Your task to perform on an android device: Turn on the flashlight Image 0: 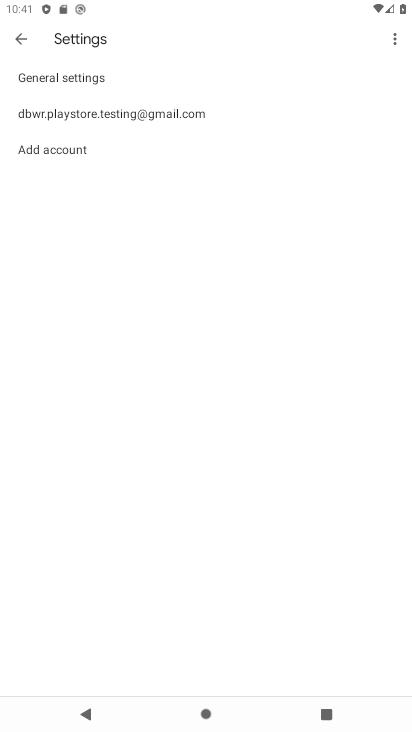
Step 0: press home button
Your task to perform on an android device: Turn on the flashlight Image 1: 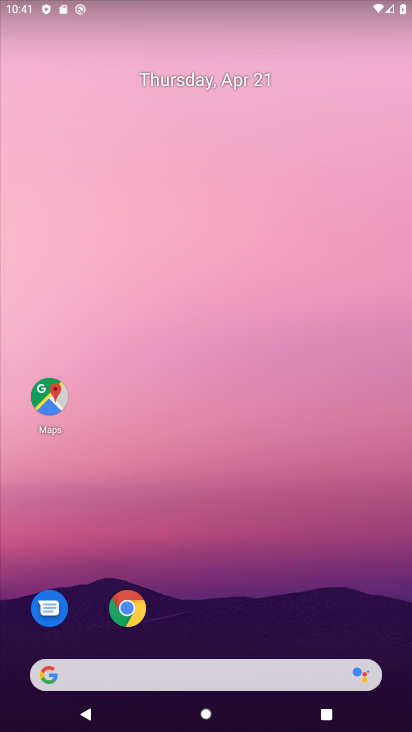
Step 1: drag from (246, 560) to (257, 11)
Your task to perform on an android device: Turn on the flashlight Image 2: 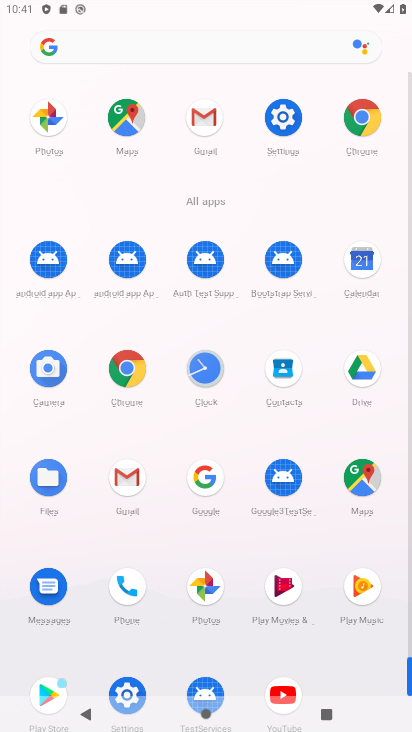
Step 2: click (285, 116)
Your task to perform on an android device: Turn on the flashlight Image 3: 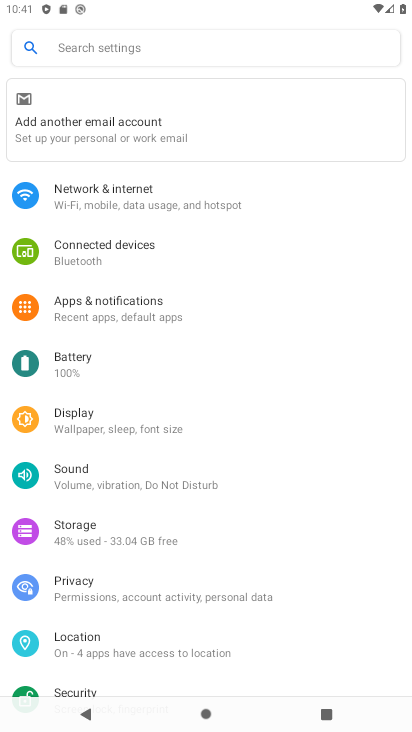
Step 3: drag from (227, 371) to (243, 280)
Your task to perform on an android device: Turn on the flashlight Image 4: 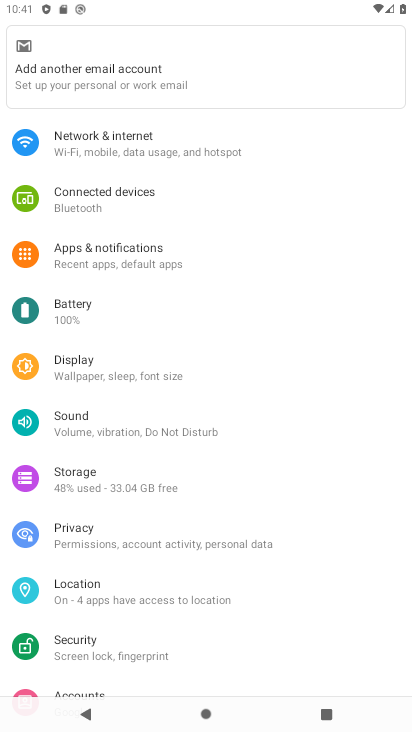
Step 4: drag from (248, 440) to (274, 352)
Your task to perform on an android device: Turn on the flashlight Image 5: 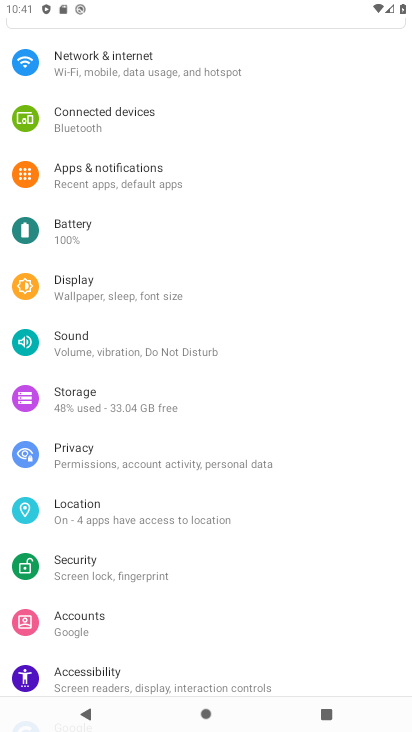
Step 5: drag from (240, 491) to (316, 337)
Your task to perform on an android device: Turn on the flashlight Image 6: 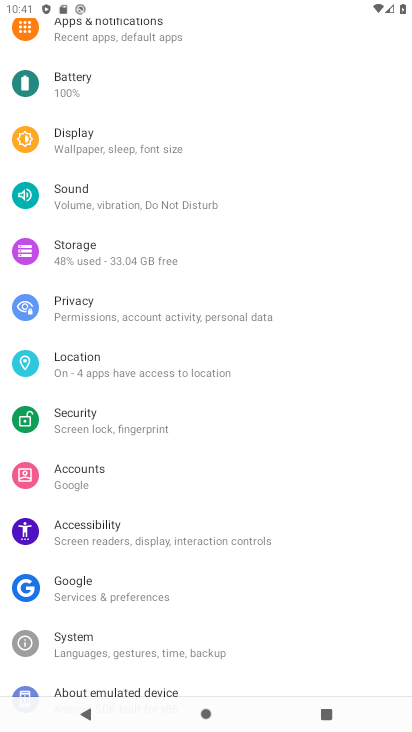
Step 6: drag from (240, 480) to (271, 367)
Your task to perform on an android device: Turn on the flashlight Image 7: 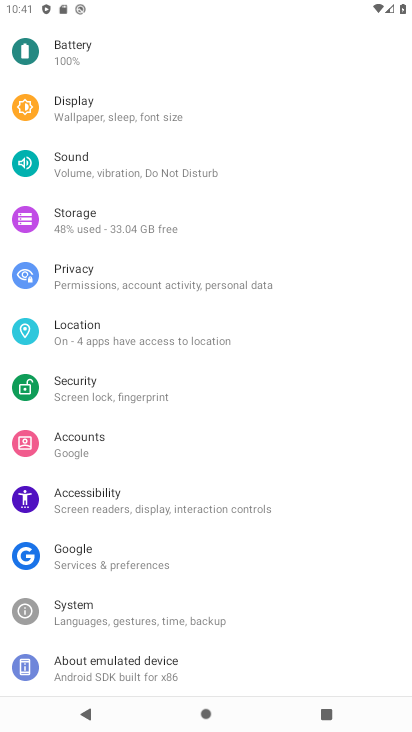
Step 7: click (119, 509)
Your task to perform on an android device: Turn on the flashlight Image 8: 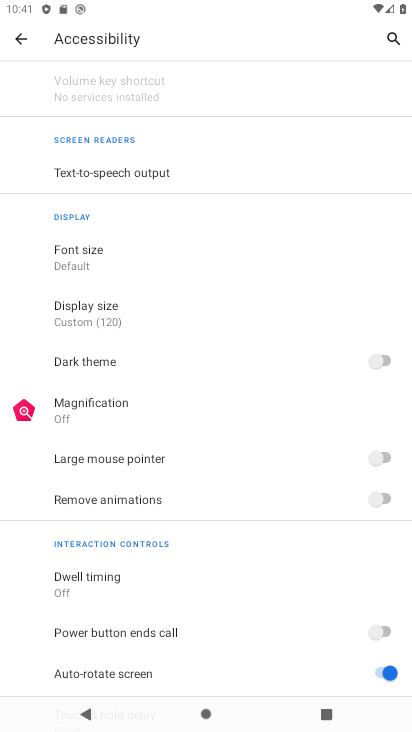
Step 8: drag from (172, 379) to (216, 313)
Your task to perform on an android device: Turn on the flashlight Image 9: 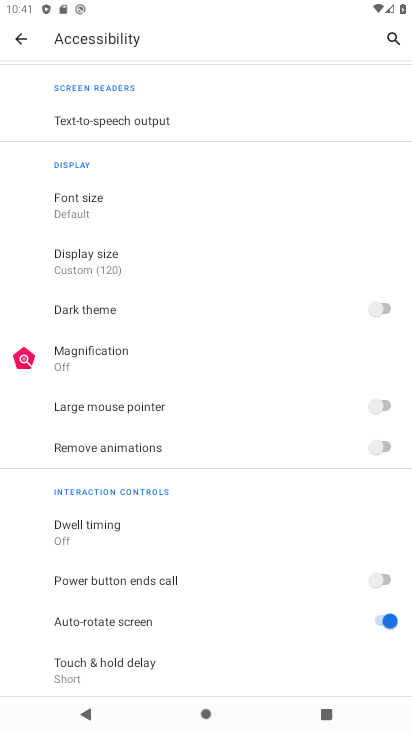
Step 9: drag from (193, 422) to (246, 355)
Your task to perform on an android device: Turn on the flashlight Image 10: 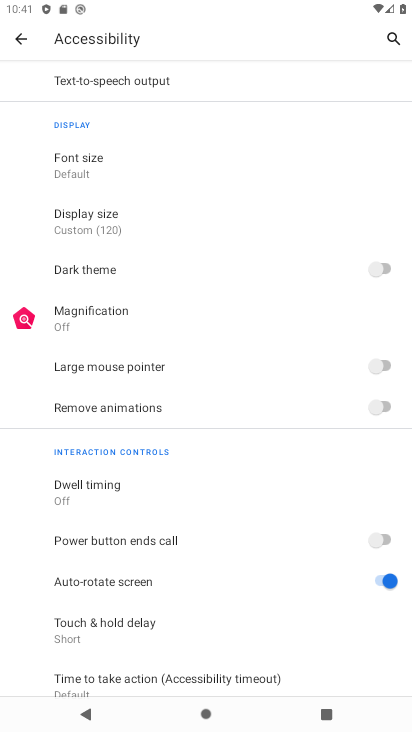
Step 10: drag from (222, 438) to (268, 334)
Your task to perform on an android device: Turn on the flashlight Image 11: 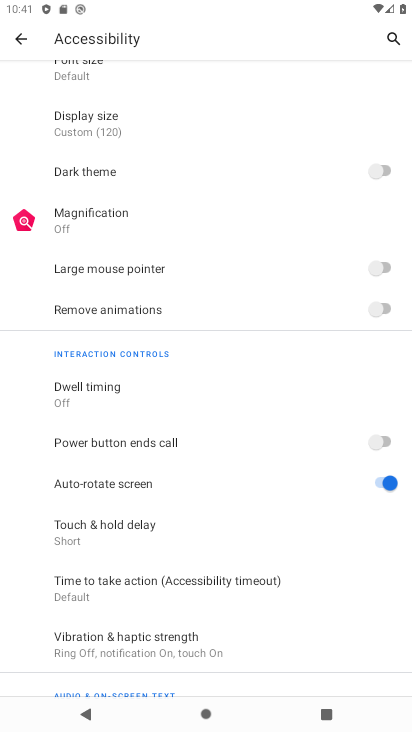
Step 11: drag from (217, 466) to (267, 366)
Your task to perform on an android device: Turn on the flashlight Image 12: 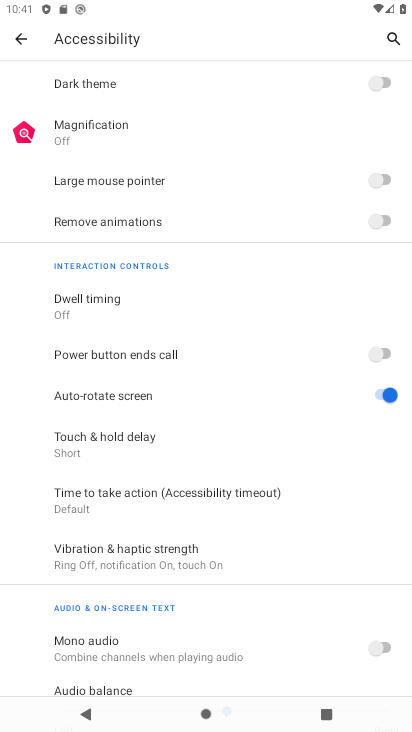
Step 12: drag from (228, 450) to (273, 358)
Your task to perform on an android device: Turn on the flashlight Image 13: 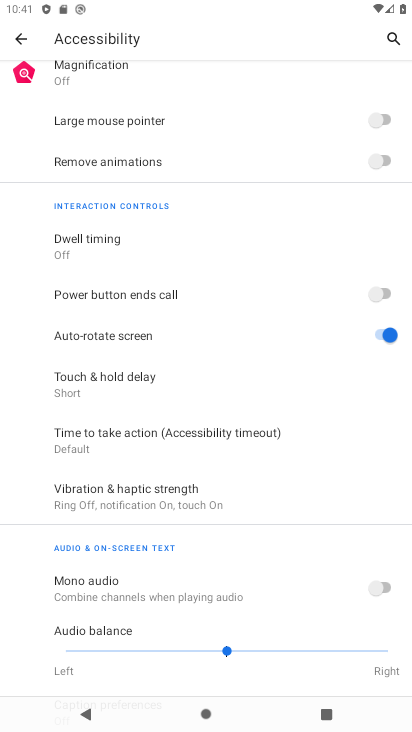
Step 13: drag from (211, 472) to (289, 353)
Your task to perform on an android device: Turn on the flashlight Image 14: 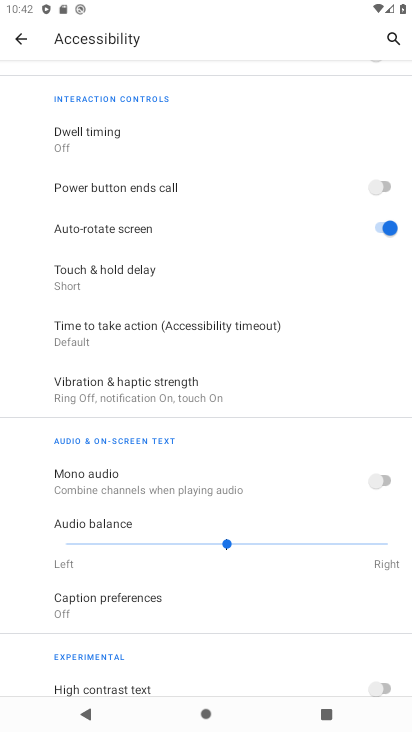
Step 14: drag from (210, 432) to (290, 274)
Your task to perform on an android device: Turn on the flashlight Image 15: 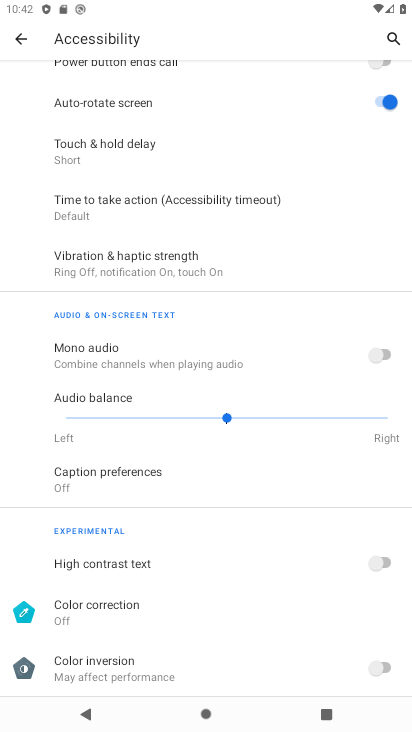
Step 15: press back button
Your task to perform on an android device: Turn on the flashlight Image 16: 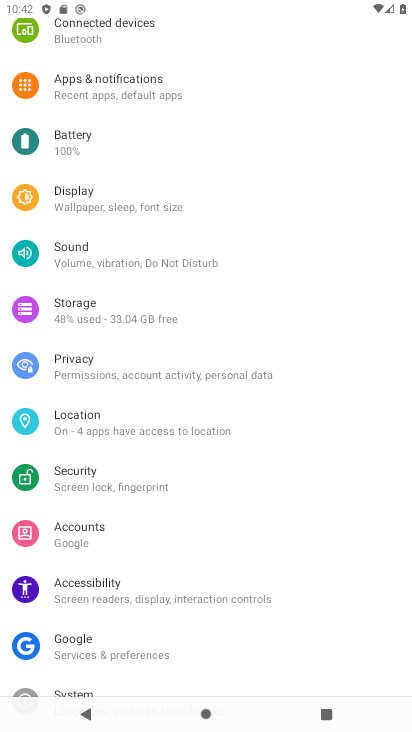
Step 16: drag from (298, 290) to (302, 426)
Your task to perform on an android device: Turn on the flashlight Image 17: 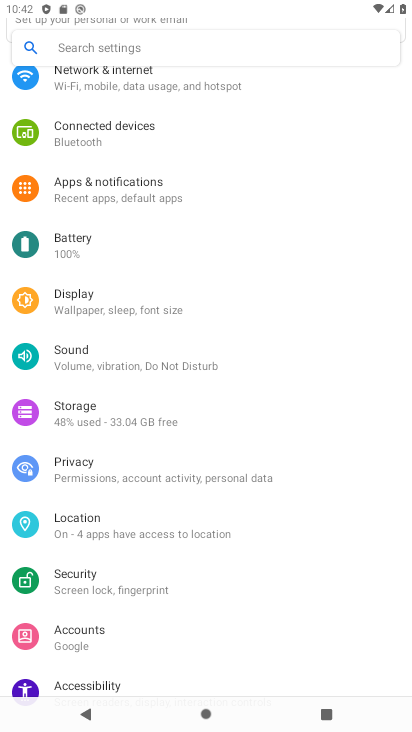
Step 17: drag from (296, 348) to (290, 412)
Your task to perform on an android device: Turn on the flashlight Image 18: 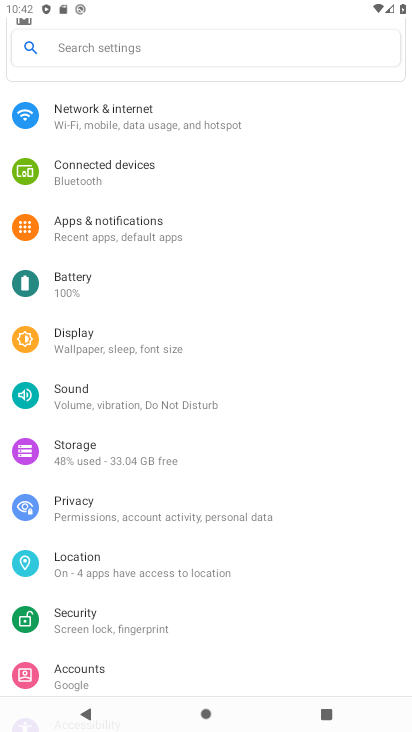
Step 18: click (176, 343)
Your task to perform on an android device: Turn on the flashlight Image 19: 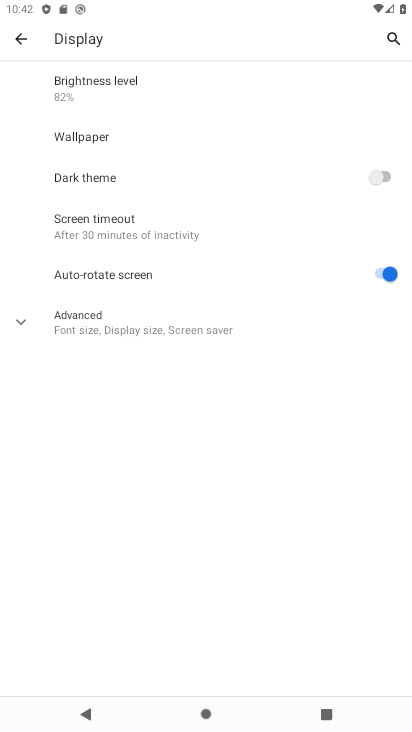
Step 19: click (181, 336)
Your task to perform on an android device: Turn on the flashlight Image 20: 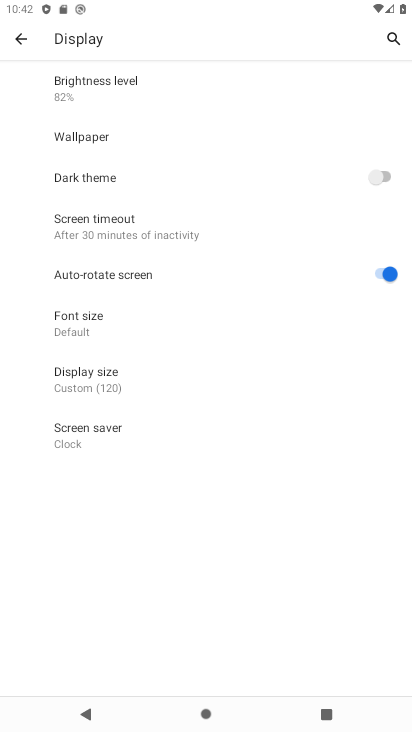
Step 20: task complete